Your task to perform on an android device: empty trash in google photos Image 0: 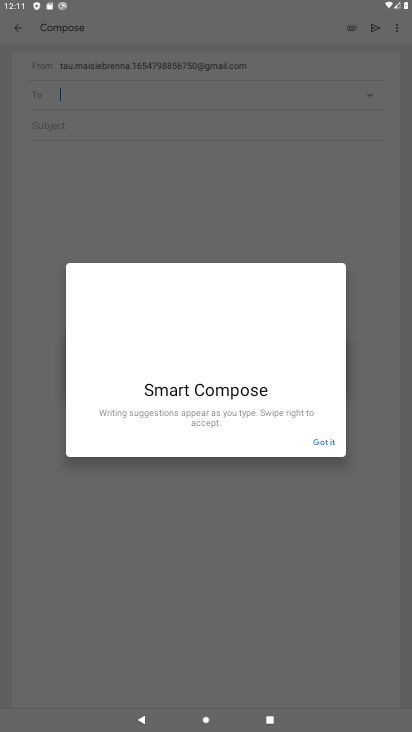
Step 0: press home button
Your task to perform on an android device: empty trash in google photos Image 1: 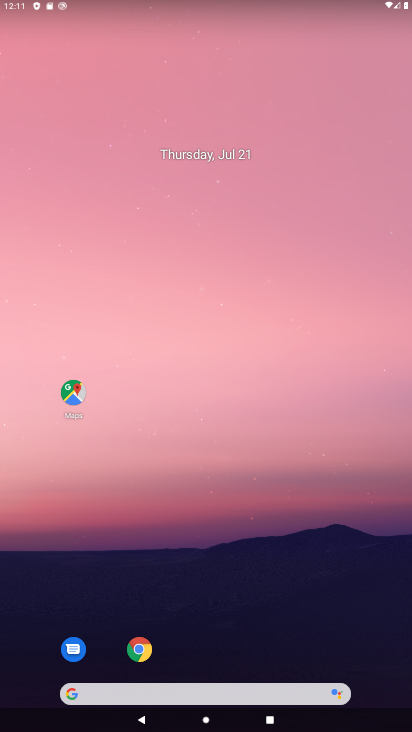
Step 1: drag from (346, 363) to (303, 59)
Your task to perform on an android device: empty trash in google photos Image 2: 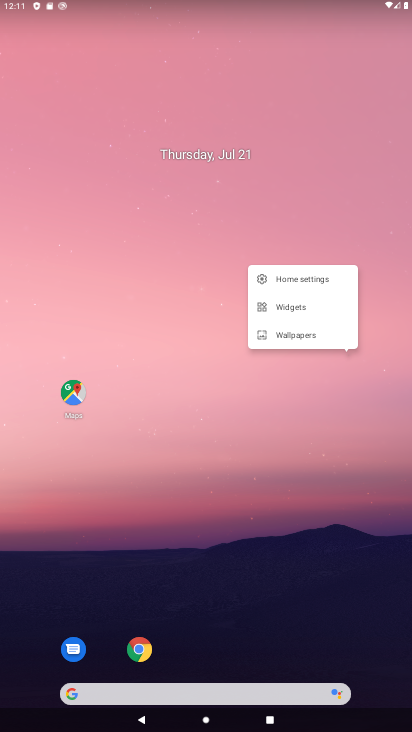
Step 2: drag from (381, 679) to (305, 49)
Your task to perform on an android device: empty trash in google photos Image 3: 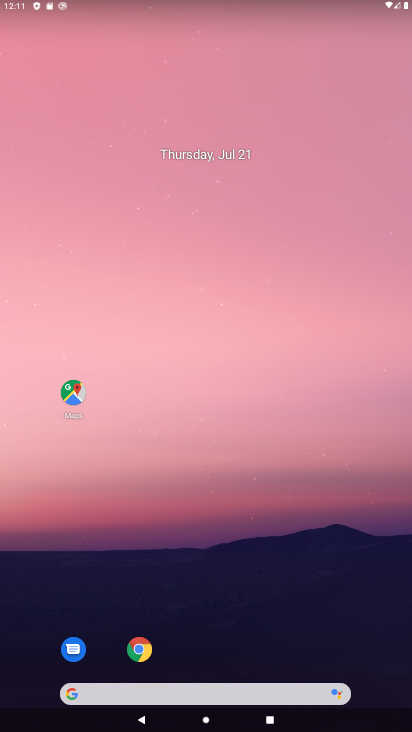
Step 3: drag from (338, 631) to (311, 85)
Your task to perform on an android device: empty trash in google photos Image 4: 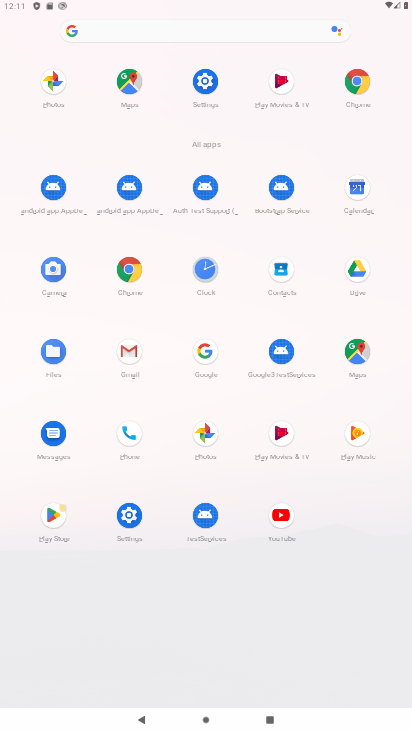
Step 4: click (202, 431)
Your task to perform on an android device: empty trash in google photos Image 5: 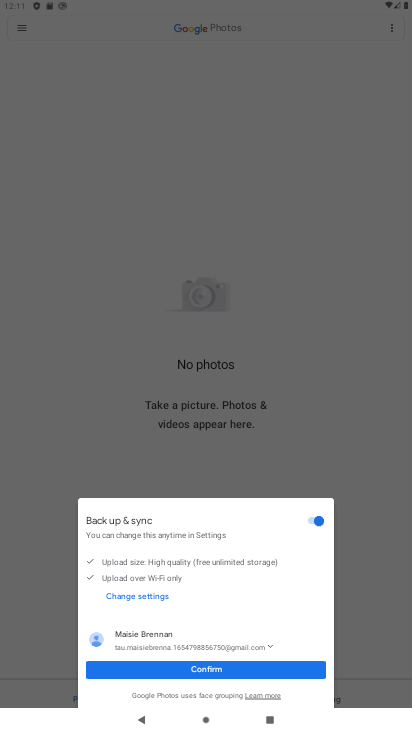
Step 5: click (203, 666)
Your task to perform on an android device: empty trash in google photos Image 6: 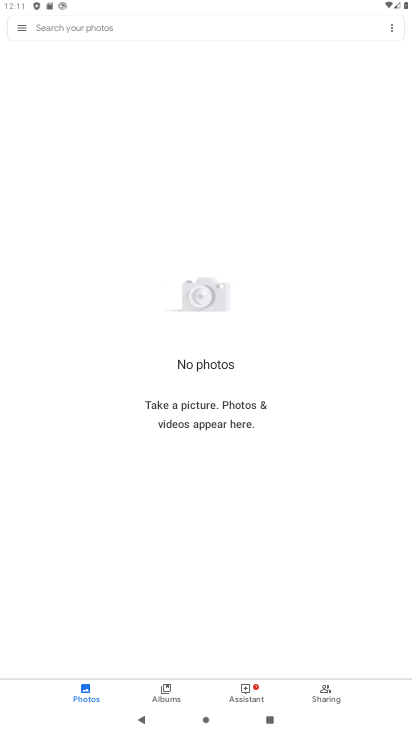
Step 6: click (20, 28)
Your task to perform on an android device: empty trash in google photos Image 7: 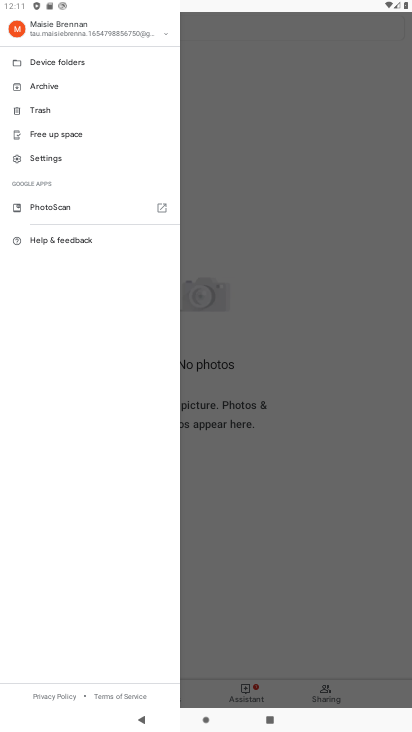
Step 7: click (39, 114)
Your task to perform on an android device: empty trash in google photos Image 8: 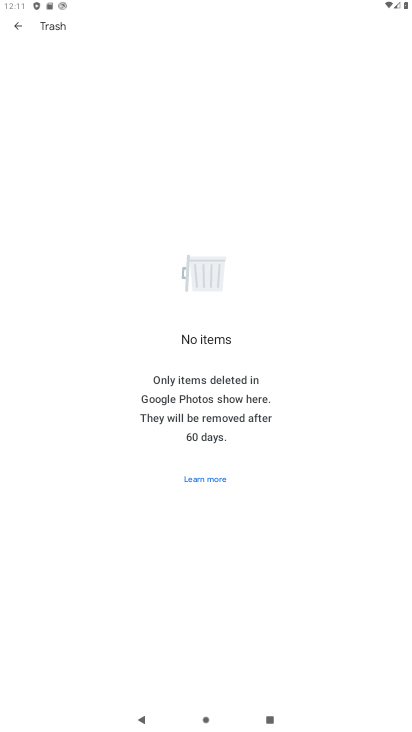
Step 8: task complete